Your task to perform on an android device: What's on my calendar tomorrow? Image 0: 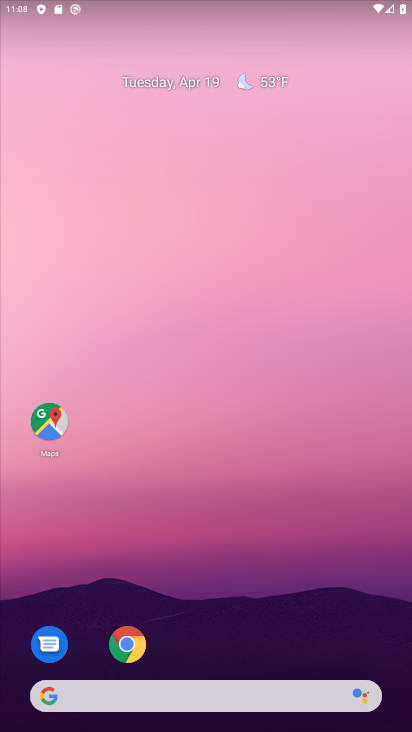
Step 0: drag from (206, 567) to (245, 67)
Your task to perform on an android device: What's on my calendar tomorrow? Image 1: 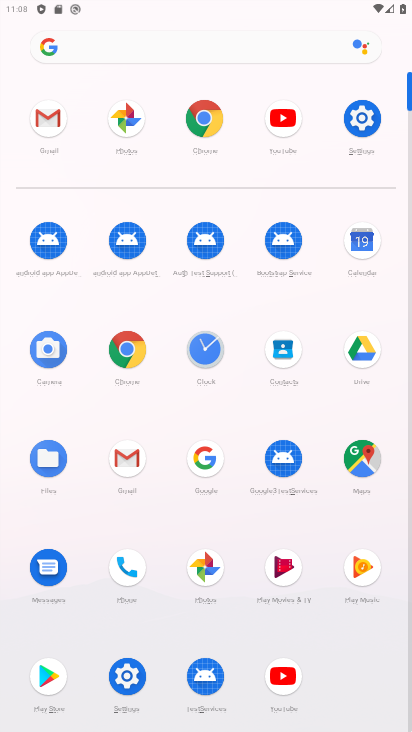
Step 1: click (362, 240)
Your task to perform on an android device: What's on my calendar tomorrow? Image 2: 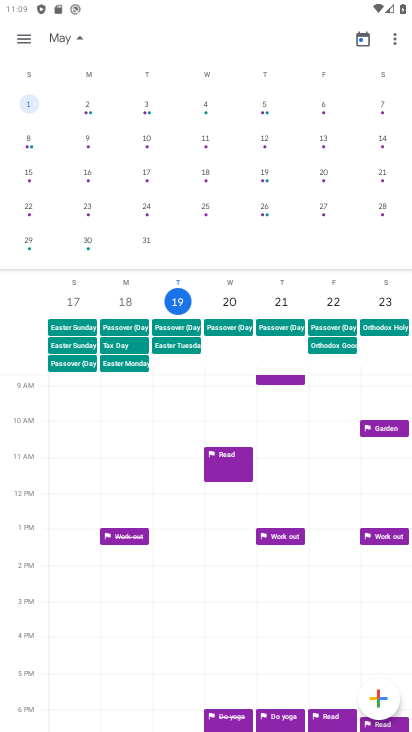
Step 2: click (72, 35)
Your task to perform on an android device: What's on my calendar tomorrow? Image 3: 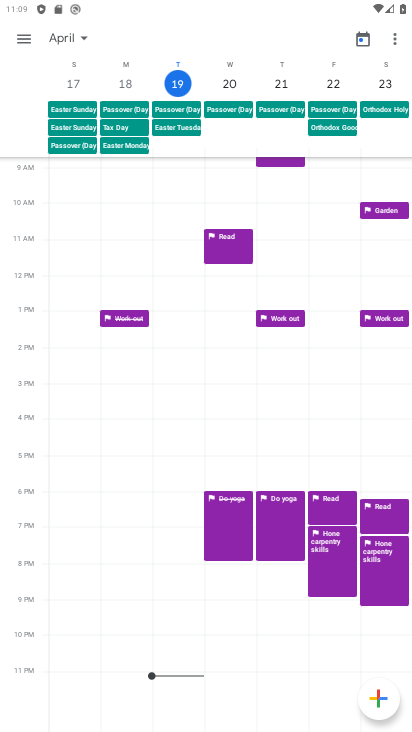
Step 3: click (83, 38)
Your task to perform on an android device: What's on my calendar tomorrow? Image 4: 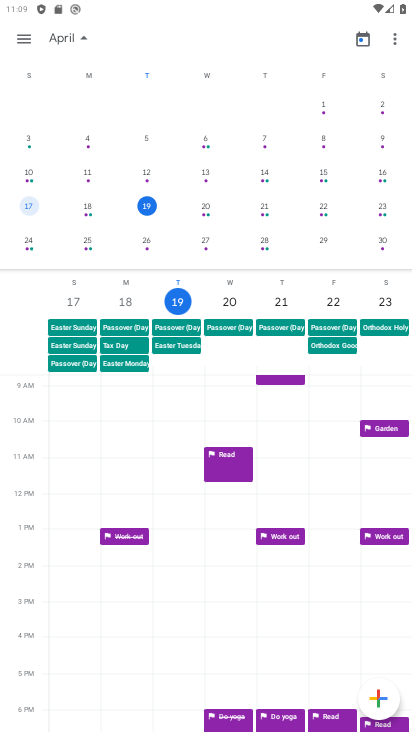
Step 4: click (19, 27)
Your task to perform on an android device: What's on my calendar tomorrow? Image 5: 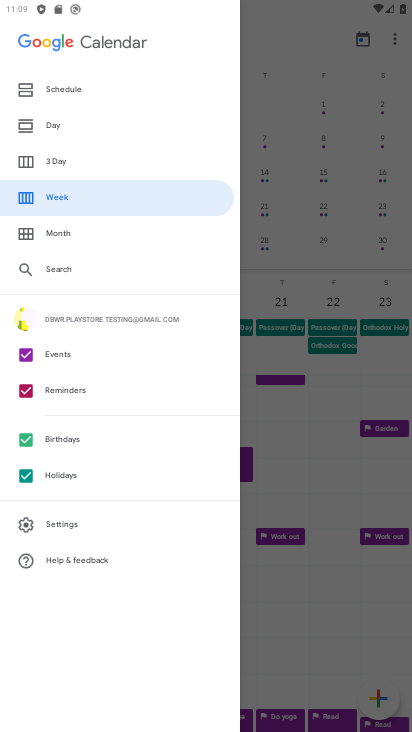
Step 5: click (72, 127)
Your task to perform on an android device: What's on my calendar tomorrow? Image 6: 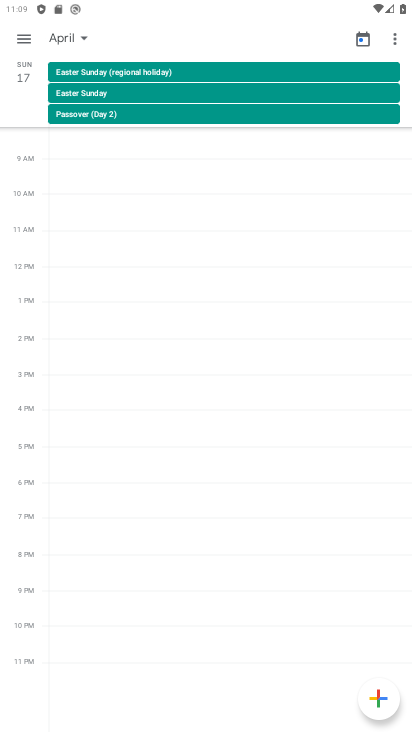
Step 6: click (83, 34)
Your task to perform on an android device: What's on my calendar tomorrow? Image 7: 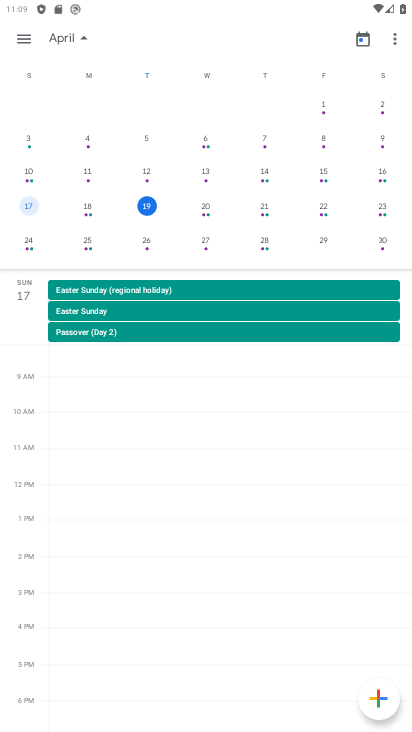
Step 7: click (85, 205)
Your task to perform on an android device: What's on my calendar tomorrow? Image 8: 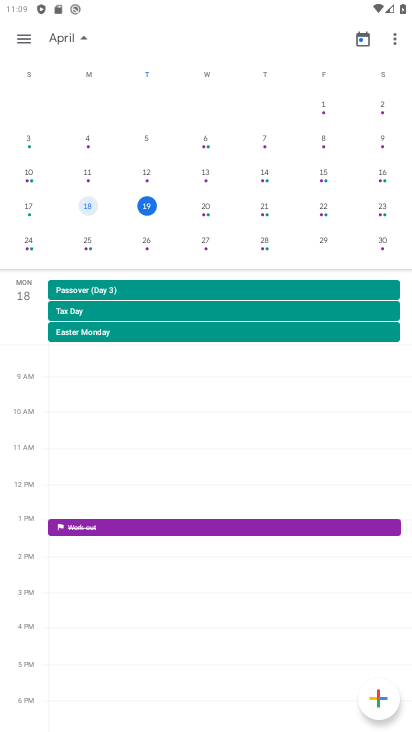
Step 8: task complete